Your task to perform on an android device: Play the last video I watched on Youtube Image 0: 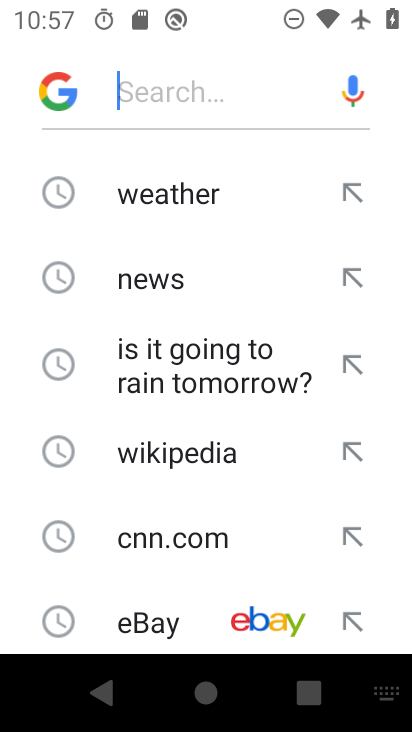
Step 0: press back button
Your task to perform on an android device: Play the last video I watched on Youtube Image 1: 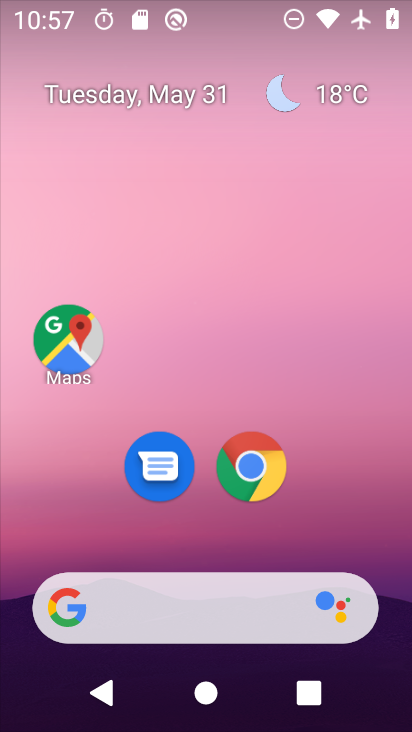
Step 1: drag from (395, 531) to (273, 16)
Your task to perform on an android device: Play the last video I watched on Youtube Image 2: 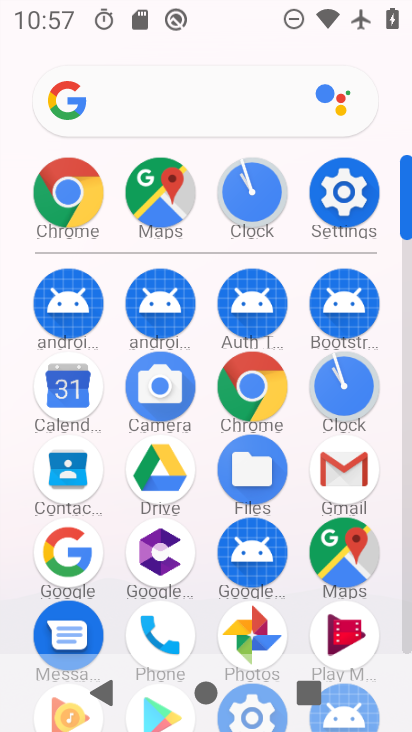
Step 2: drag from (12, 550) to (15, 240)
Your task to perform on an android device: Play the last video I watched on Youtube Image 3: 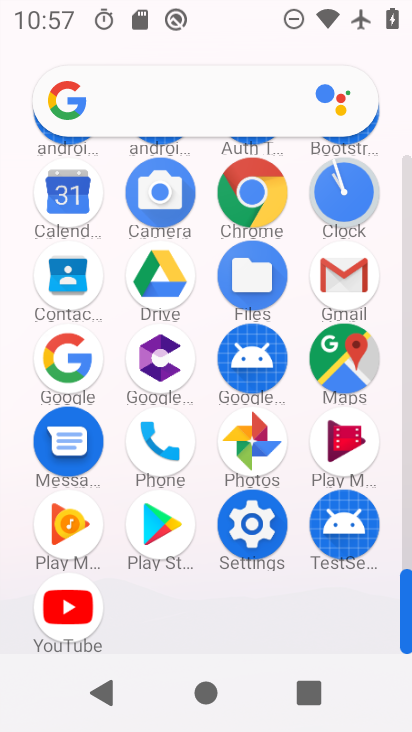
Step 3: click (74, 611)
Your task to perform on an android device: Play the last video I watched on Youtube Image 4: 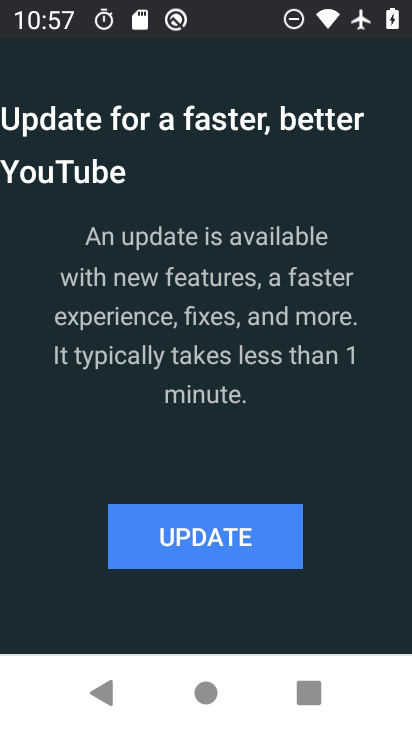
Step 4: click (198, 531)
Your task to perform on an android device: Play the last video I watched on Youtube Image 5: 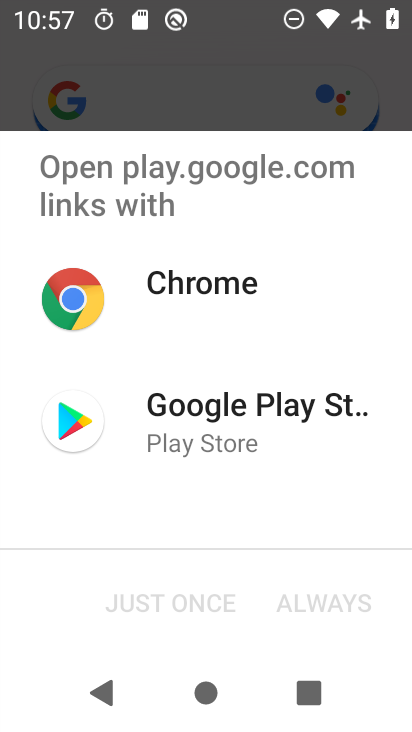
Step 5: click (301, 431)
Your task to perform on an android device: Play the last video I watched on Youtube Image 6: 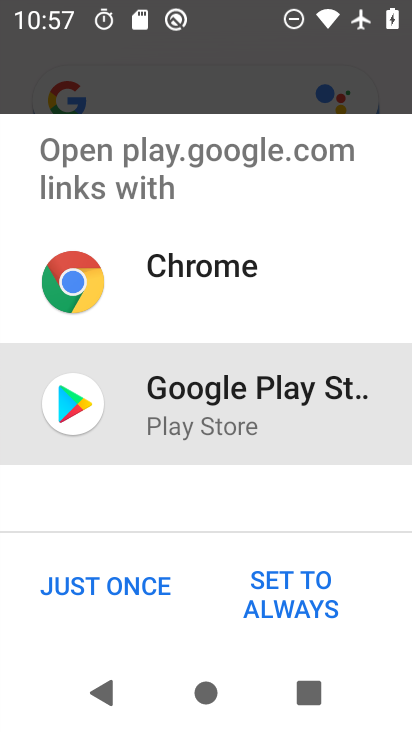
Step 6: click (79, 594)
Your task to perform on an android device: Play the last video I watched on Youtube Image 7: 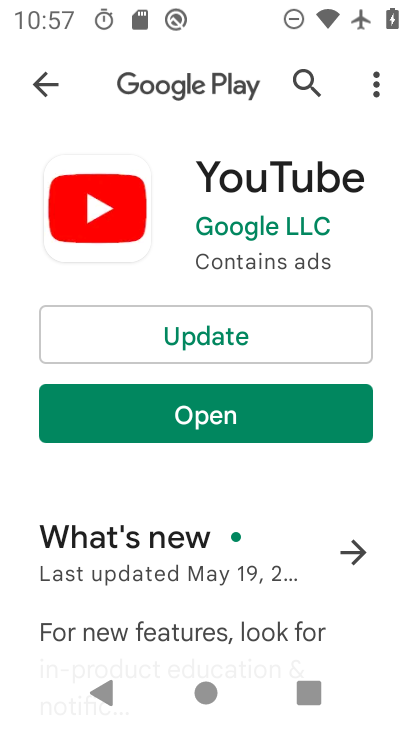
Step 7: click (210, 337)
Your task to perform on an android device: Play the last video I watched on Youtube Image 8: 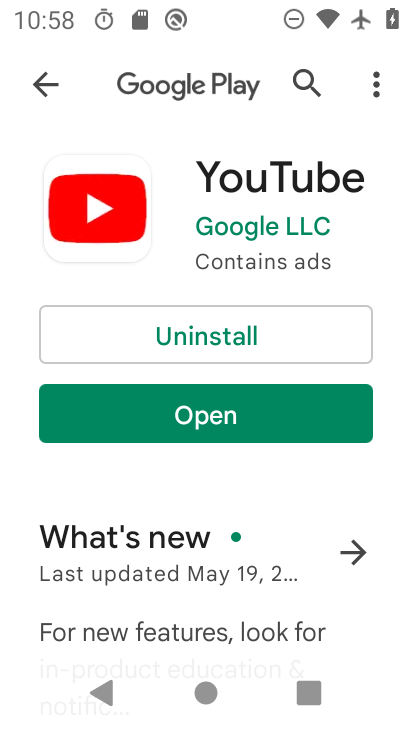
Step 8: click (195, 404)
Your task to perform on an android device: Play the last video I watched on Youtube Image 9: 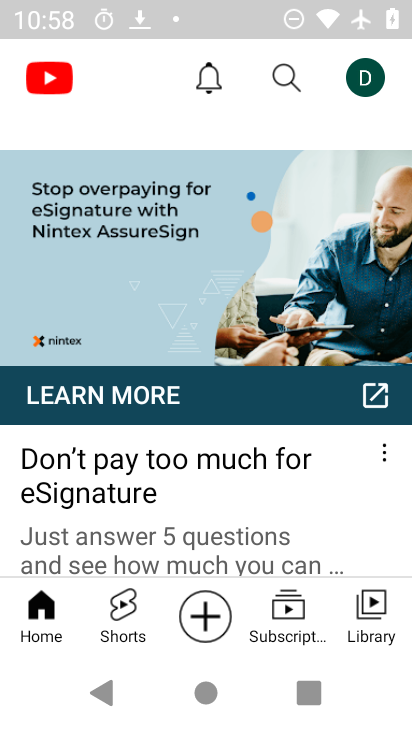
Step 9: click (344, 589)
Your task to perform on an android device: Play the last video I watched on Youtube Image 10: 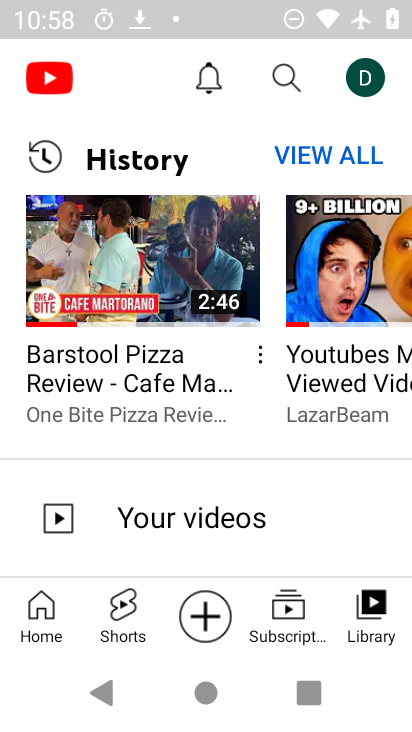
Step 10: click (181, 262)
Your task to perform on an android device: Play the last video I watched on Youtube Image 11: 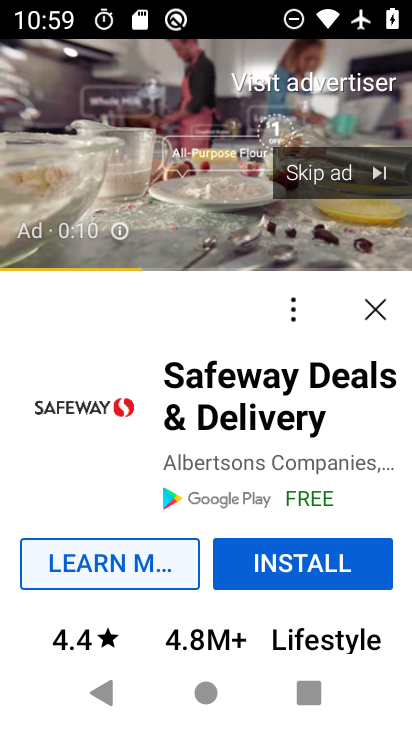
Step 11: click (374, 313)
Your task to perform on an android device: Play the last video I watched on Youtube Image 12: 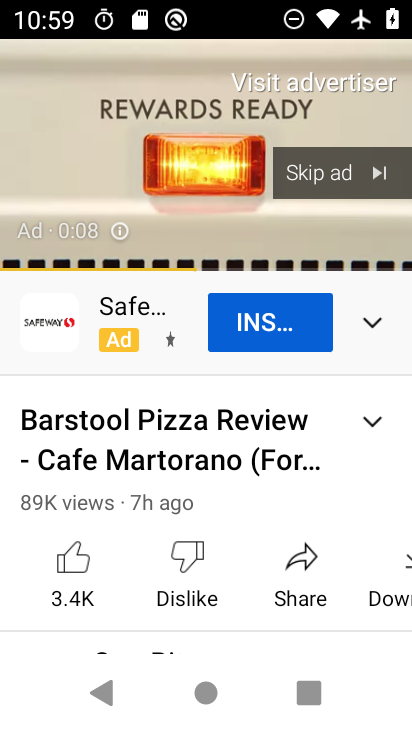
Step 12: click (344, 166)
Your task to perform on an android device: Play the last video I watched on Youtube Image 13: 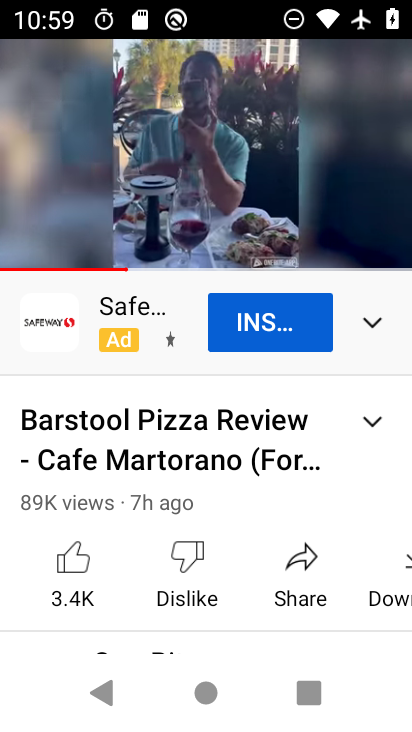
Step 13: task complete